Your task to perform on an android device: turn notification dots off Image 0: 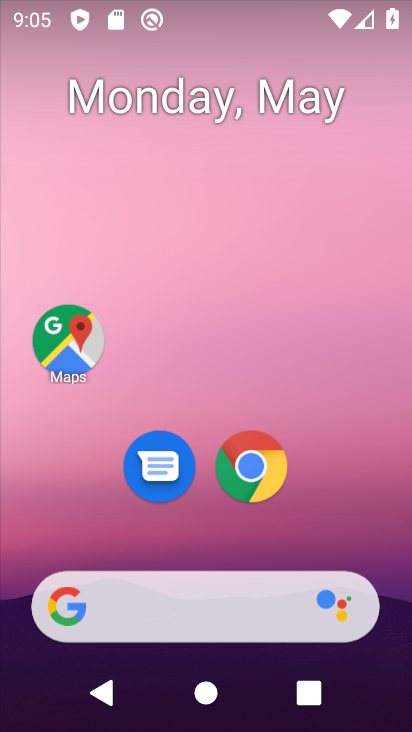
Step 0: drag from (342, 519) to (354, 66)
Your task to perform on an android device: turn notification dots off Image 1: 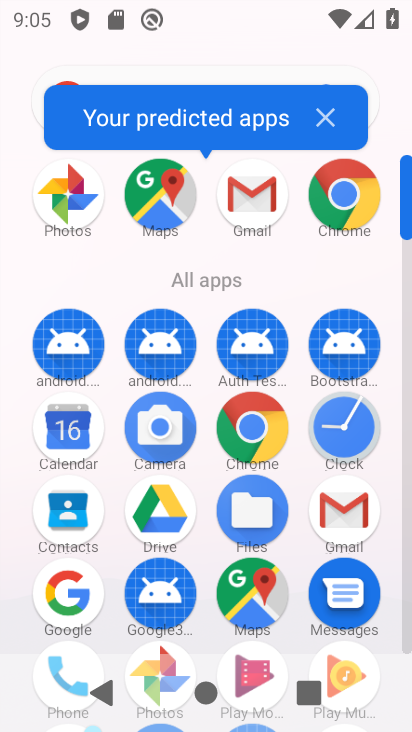
Step 1: drag from (291, 303) to (293, 39)
Your task to perform on an android device: turn notification dots off Image 2: 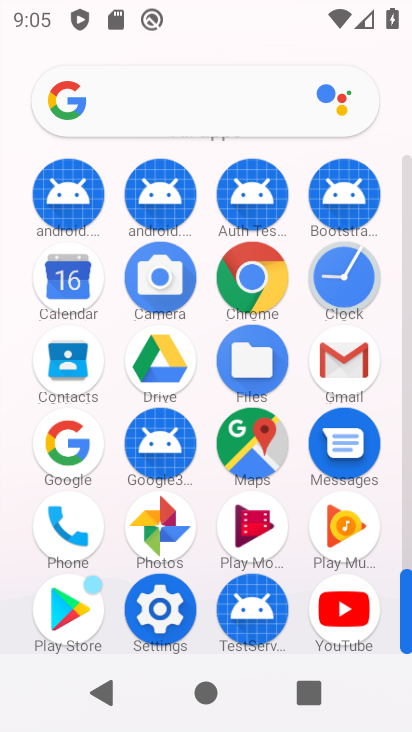
Step 2: click (161, 609)
Your task to perform on an android device: turn notification dots off Image 3: 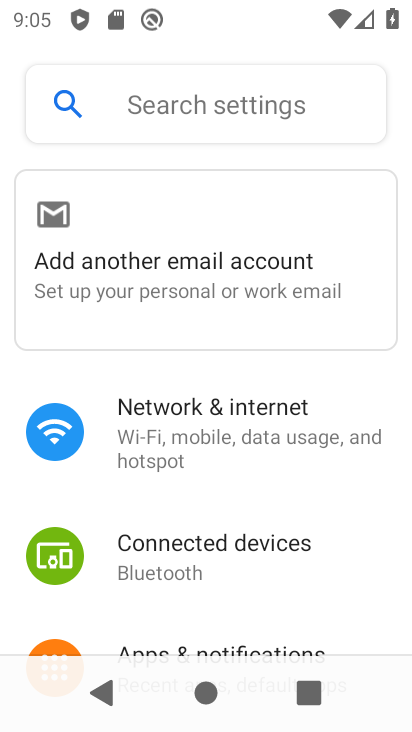
Step 3: drag from (325, 566) to (360, 247)
Your task to perform on an android device: turn notification dots off Image 4: 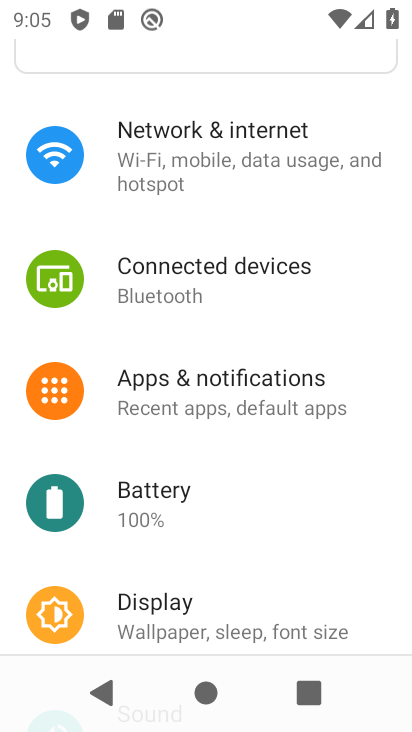
Step 4: click (210, 395)
Your task to perform on an android device: turn notification dots off Image 5: 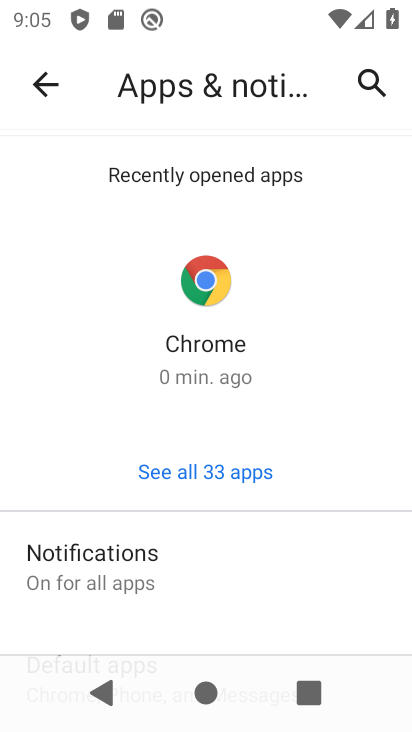
Step 5: click (108, 575)
Your task to perform on an android device: turn notification dots off Image 6: 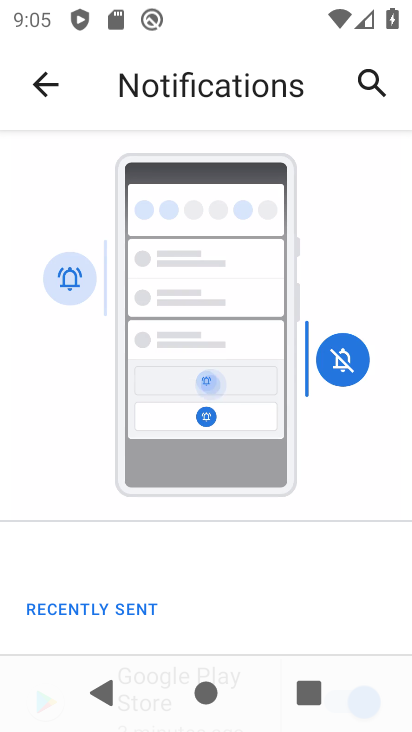
Step 6: drag from (288, 594) to (341, 30)
Your task to perform on an android device: turn notification dots off Image 7: 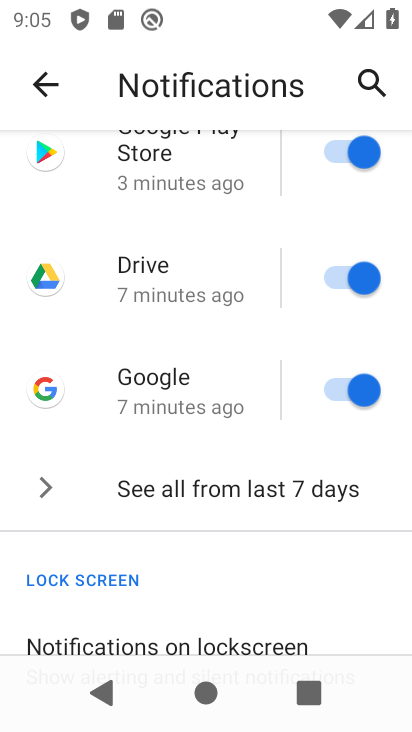
Step 7: drag from (270, 486) to (288, 115)
Your task to perform on an android device: turn notification dots off Image 8: 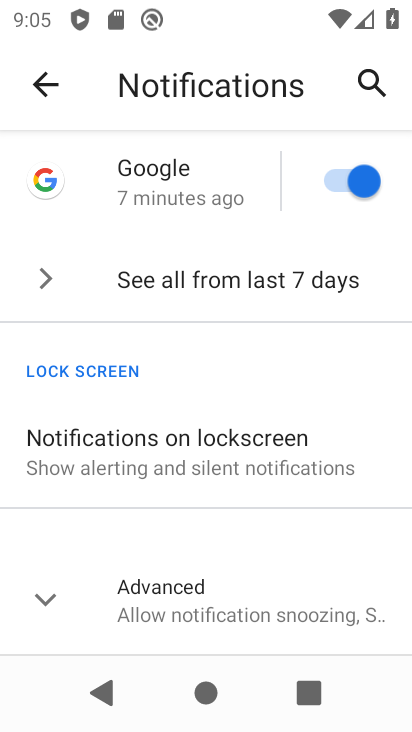
Step 8: click (253, 603)
Your task to perform on an android device: turn notification dots off Image 9: 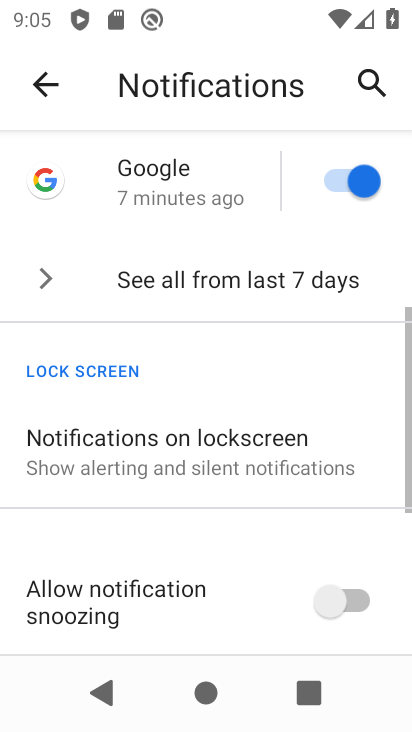
Step 9: drag from (269, 590) to (258, 198)
Your task to perform on an android device: turn notification dots off Image 10: 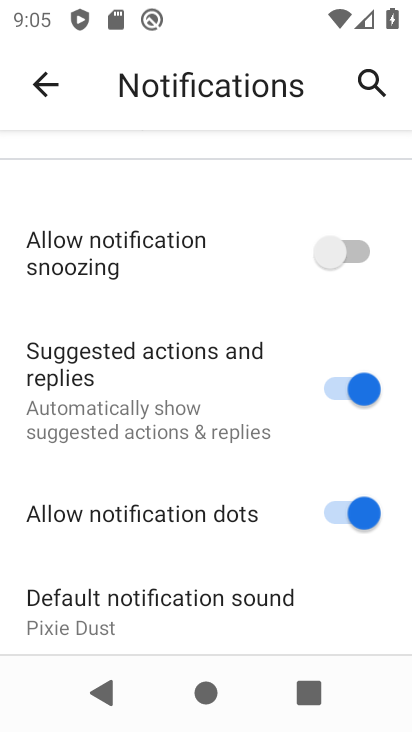
Step 10: click (344, 512)
Your task to perform on an android device: turn notification dots off Image 11: 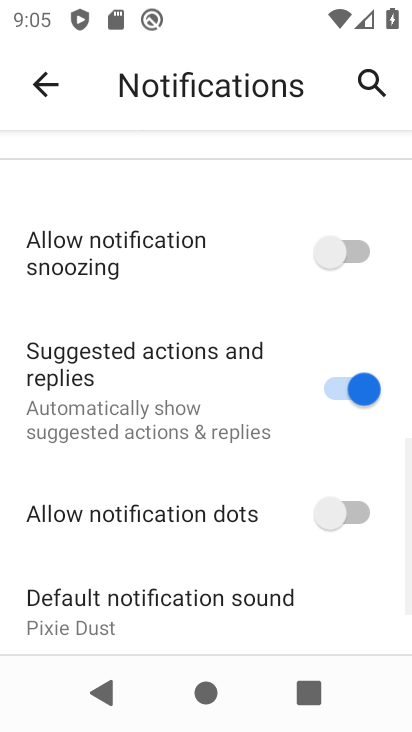
Step 11: task complete